Your task to perform on an android device: Do I have any events tomorrow? Image 0: 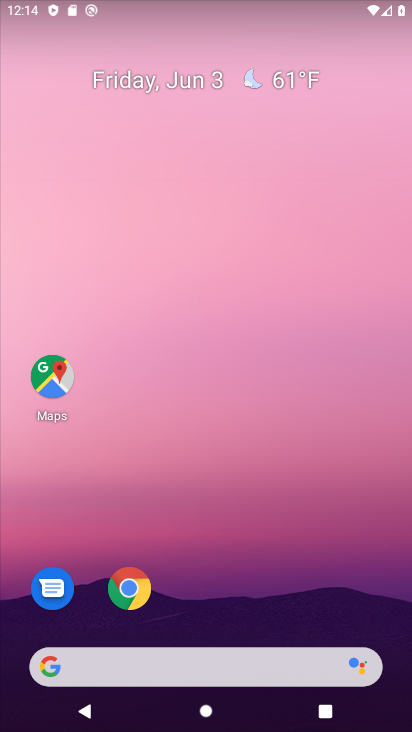
Step 0: drag from (281, 619) to (240, 129)
Your task to perform on an android device: Do I have any events tomorrow? Image 1: 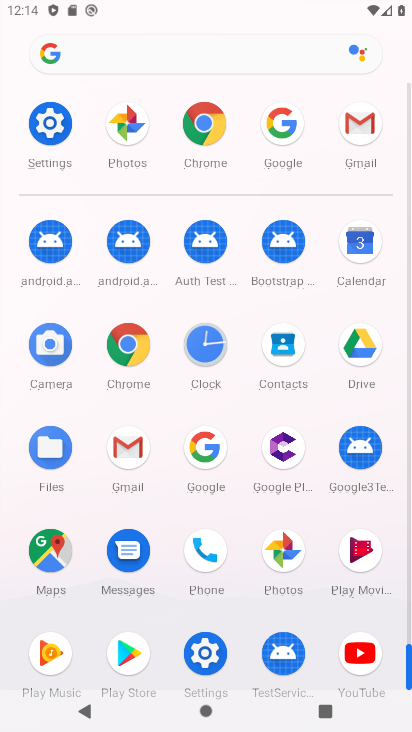
Step 1: click (355, 272)
Your task to perform on an android device: Do I have any events tomorrow? Image 2: 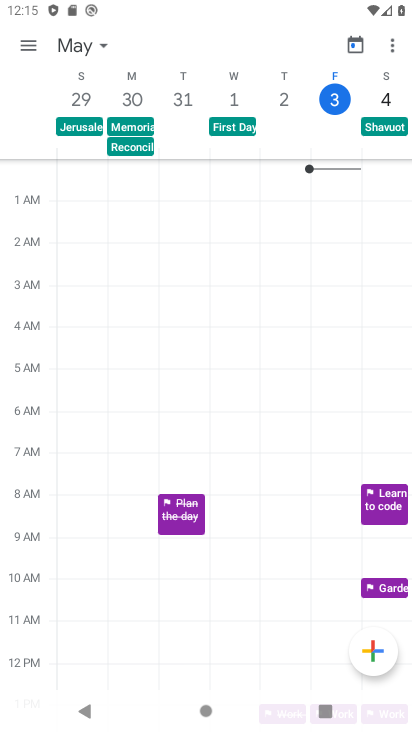
Step 2: click (380, 104)
Your task to perform on an android device: Do I have any events tomorrow? Image 3: 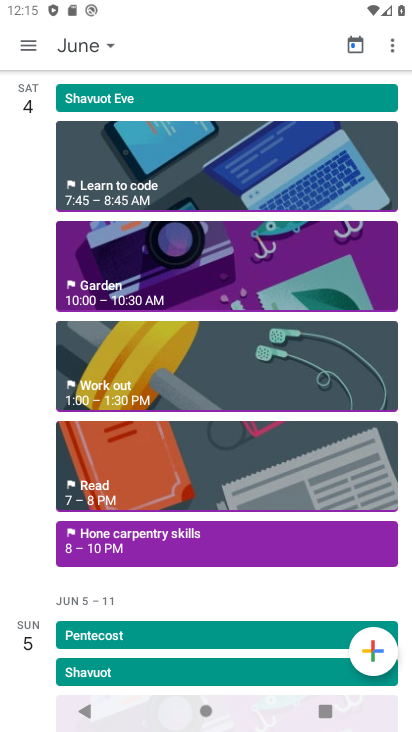
Step 3: task complete